Your task to perform on an android device: toggle airplane mode Image 0: 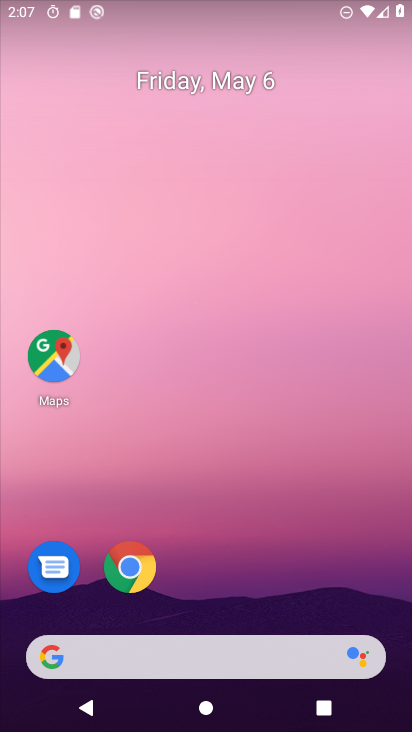
Step 0: drag from (271, 687) to (253, 464)
Your task to perform on an android device: toggle airplane mode Image 1: 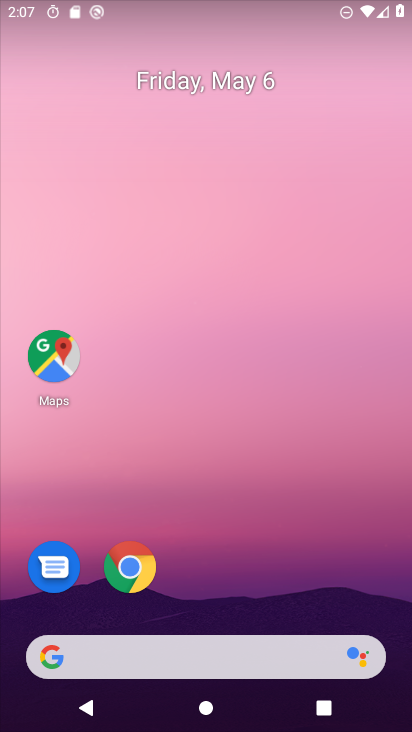
Step 1: drag from (292, 686) to (241, 258)
Your task to perform on an android device: toggle airplane mode Image 2: 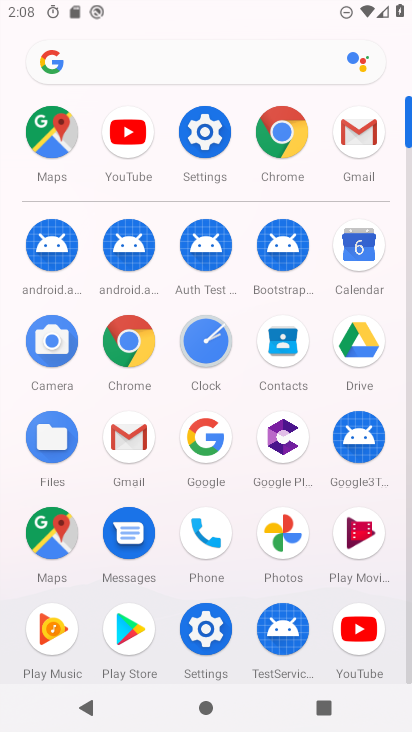
Step 2: click (208, 129)
Your task to perform on an android device: toggle airplane mode Image 3: 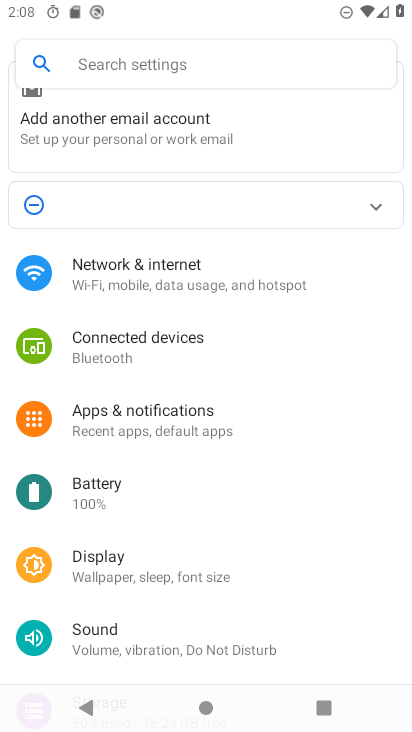
Step 3: click (168, 291)
Your task to perform on an android device: toggle airplane mode Image 4: 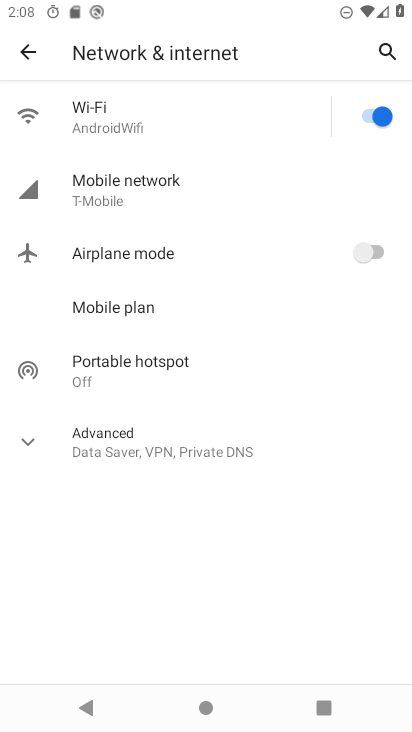
Step 4: click (200, 256)
Your task to perform on an android device: toggle airplane mode Image 5: 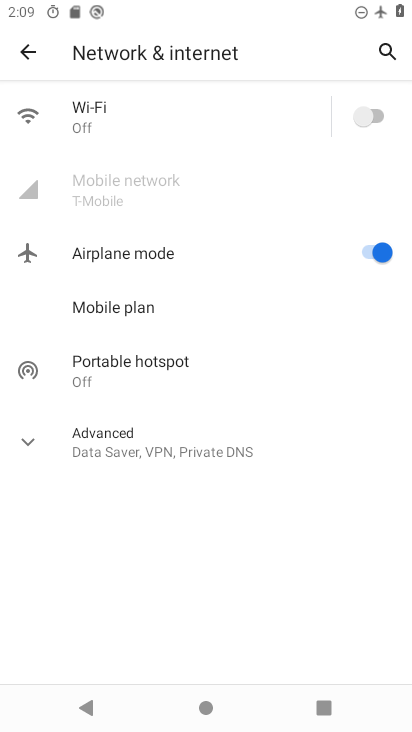
Step 5: click (199, 256)
Your task to perform on an android device: toggle airplane mode Image 6: 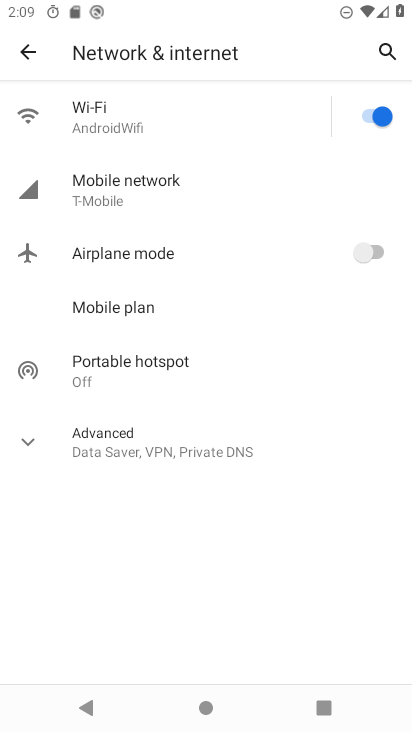
Step 6: task complete